Your task to perform on an android device: Turn on the flashlight Image 0: 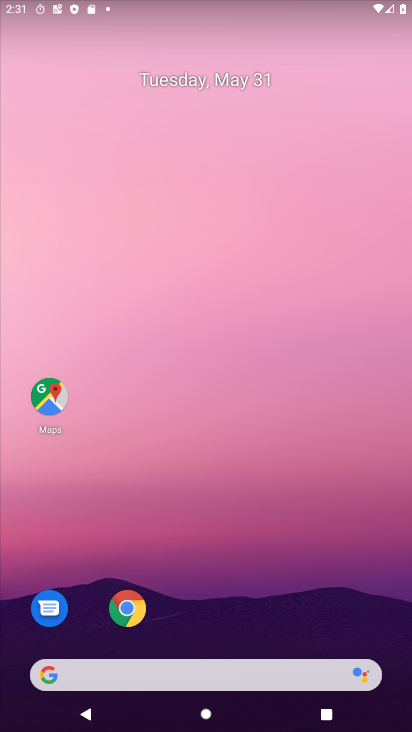
Step 0: drag from (216, 640) to (293, 260)
Your task to perform on an android device: Turn on the flashlight Image 1: 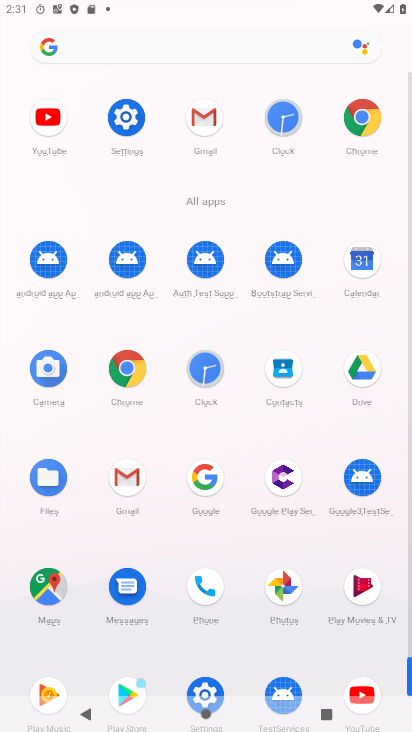
Step 1: click (126, 143)
Your task to perform on an android device: Turn on the flashlight Image 2: 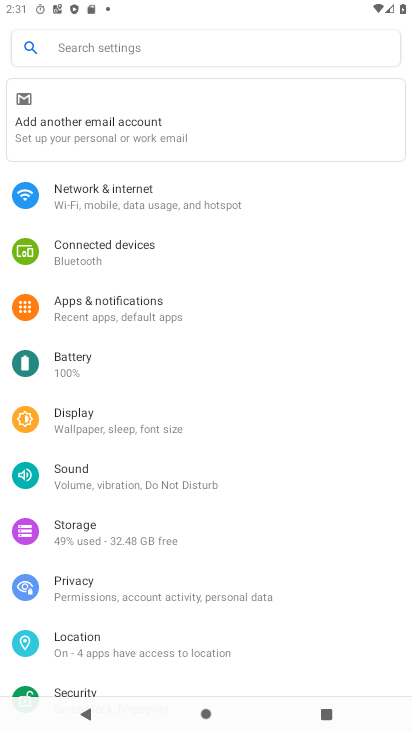
Step 2: click (212, 42)
Your task to perform on an android device: Turn on the flashlight Image 3: 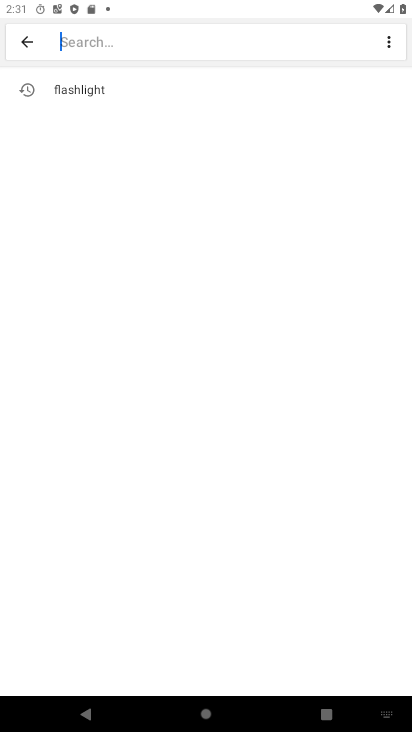
Step 3: type "flashlight"
Your task to perform on an android device: Turn on the flashlight Image 4: 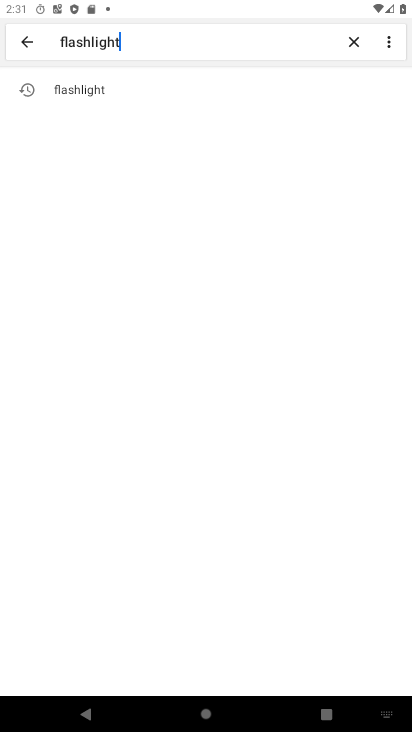
Step 4: click (102, 90)
Your task to perform on an android device: Turn on the flashlight Image 5: 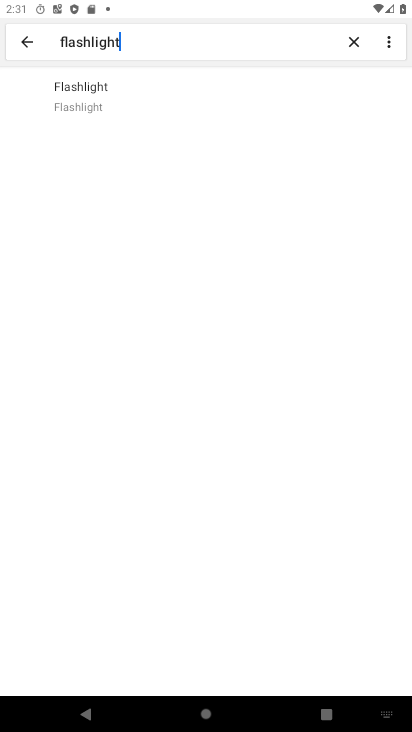
Step 5: click (80, 93)
Your task to perform on an android device: Turn on the flashlight Image 6: 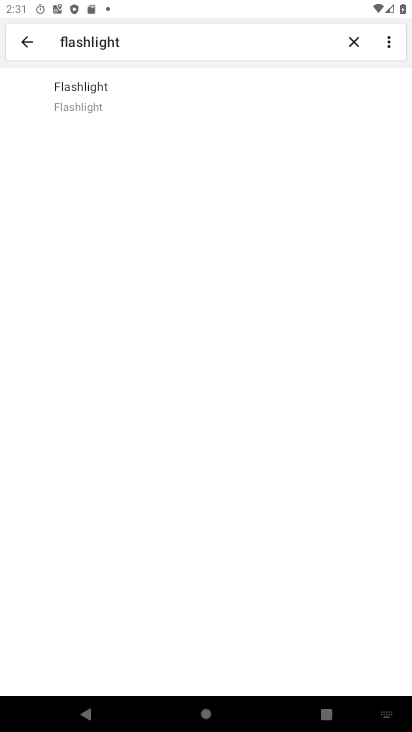
Step 6: click (85, 88)
Your task to perform on an android device: Turn on the flashlight Image 7: 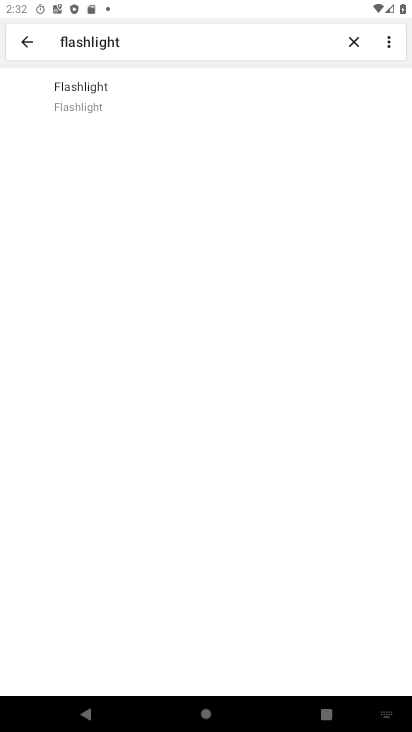
Step 7: task complete